Your task to perform on an android device: Open Maps and search for coffee Image 0: 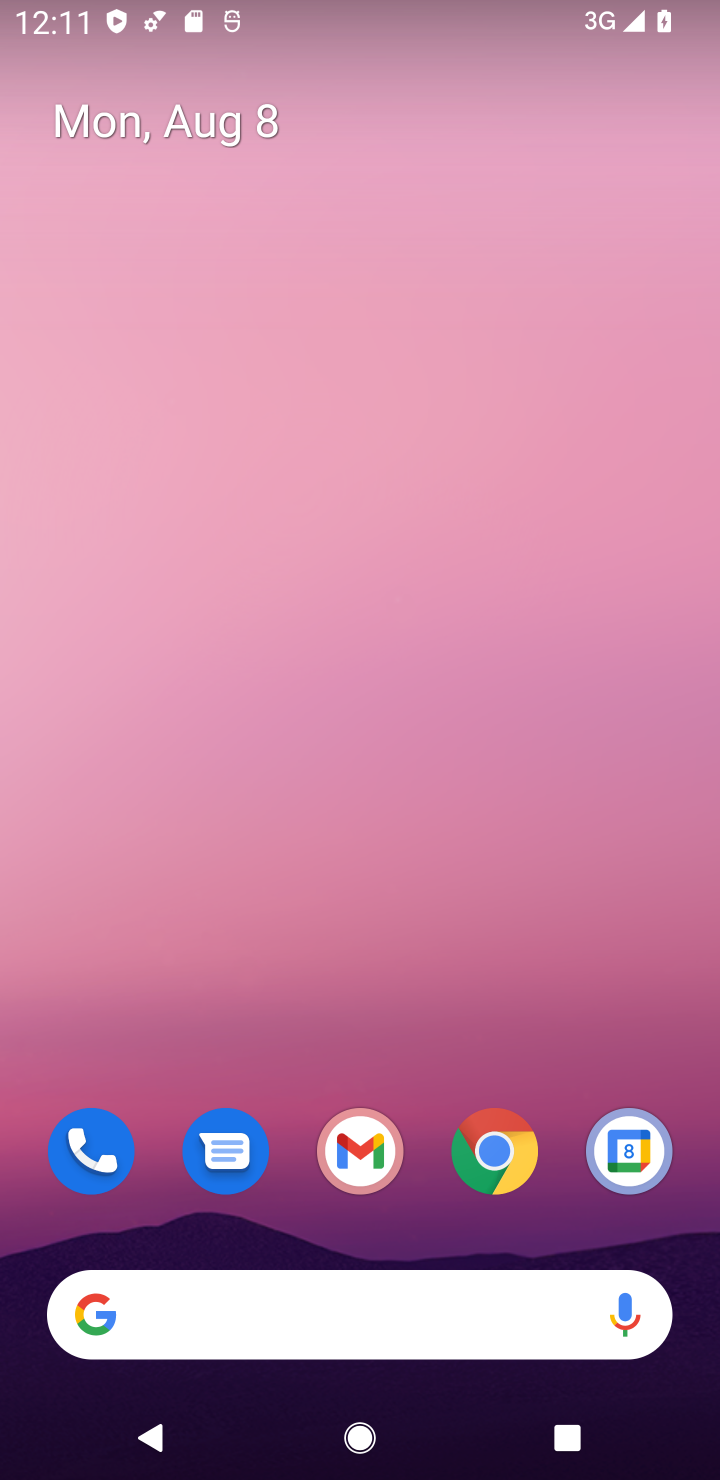
Step 0: drag from (448, 873) to (356, 436)
Your task to perform on an android device: Open Maps and search for coffee Image 1: 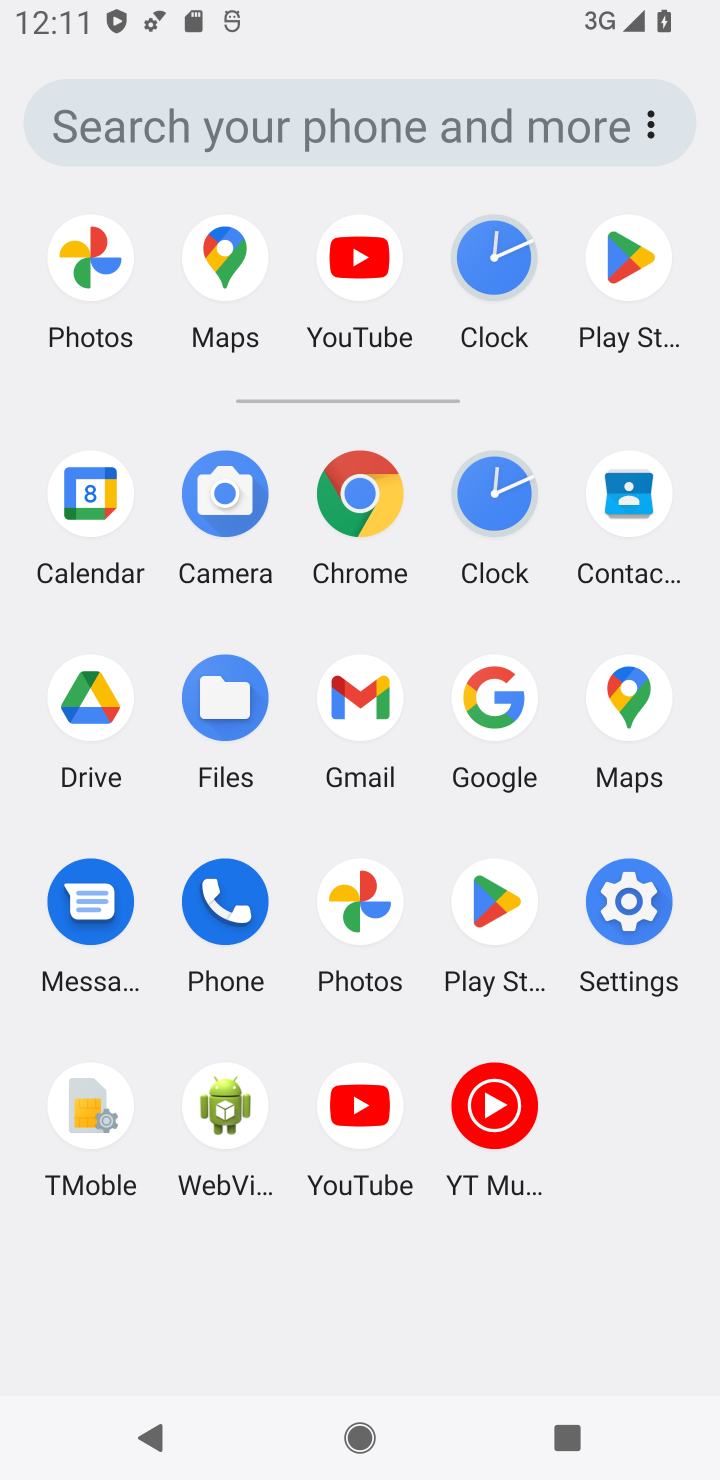
Step 1: click (625, 693)
Your task to perform on an android device: Open Maps and search for coffee Image 2: 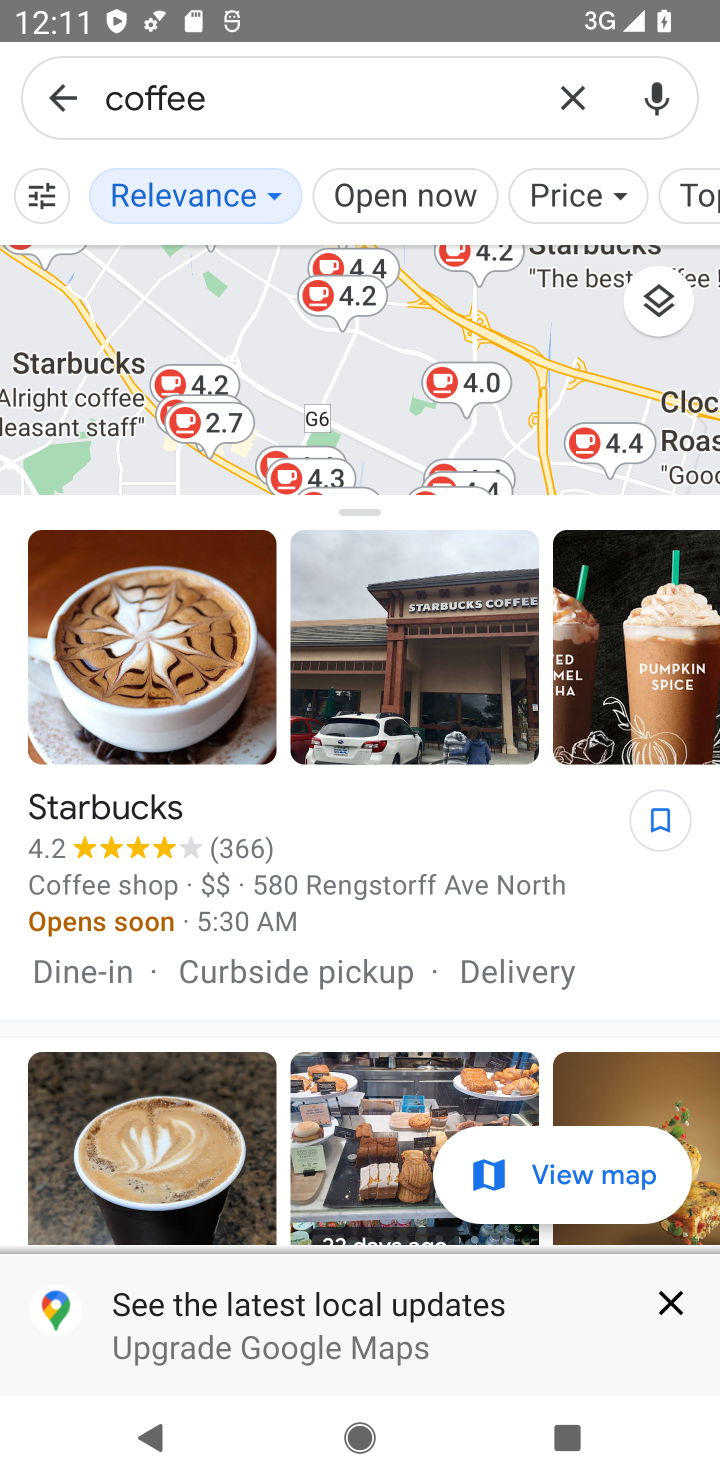
Step 2: task complete